Your task to perform on an android device: Open Google Chrome and click the shortcut for Amazon.com Image 0: 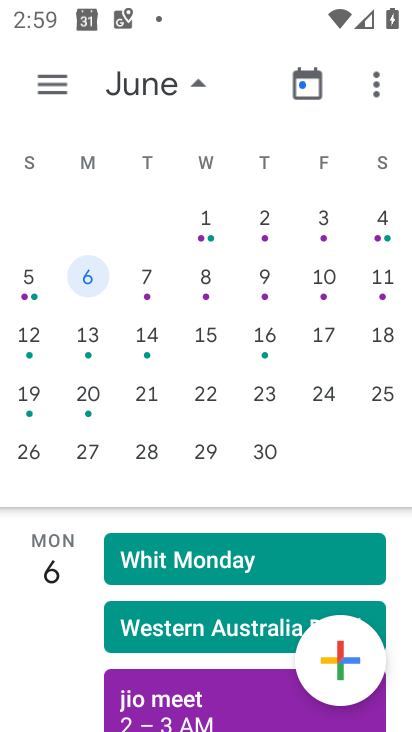
Step 0: press home button
Your task to perform on an android device: Open Google Chrome and click the shortcut for Amazon.com Image 1: 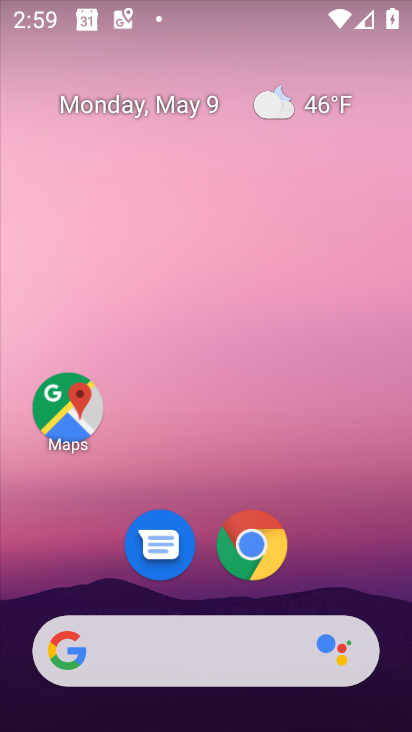
Step 1: click (233, 542)
Your task to perform on an android device: Open Google Chrome and click the shortcut for Amazon.com Image 2: 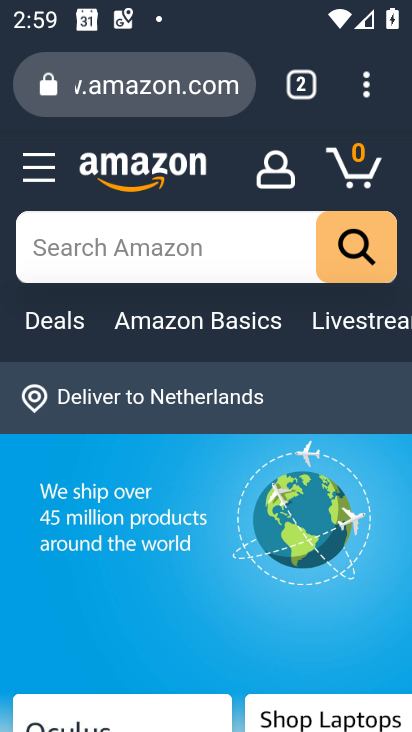
Step 2: task complete